Your task to perform on an android device: show emergency info Image 0: 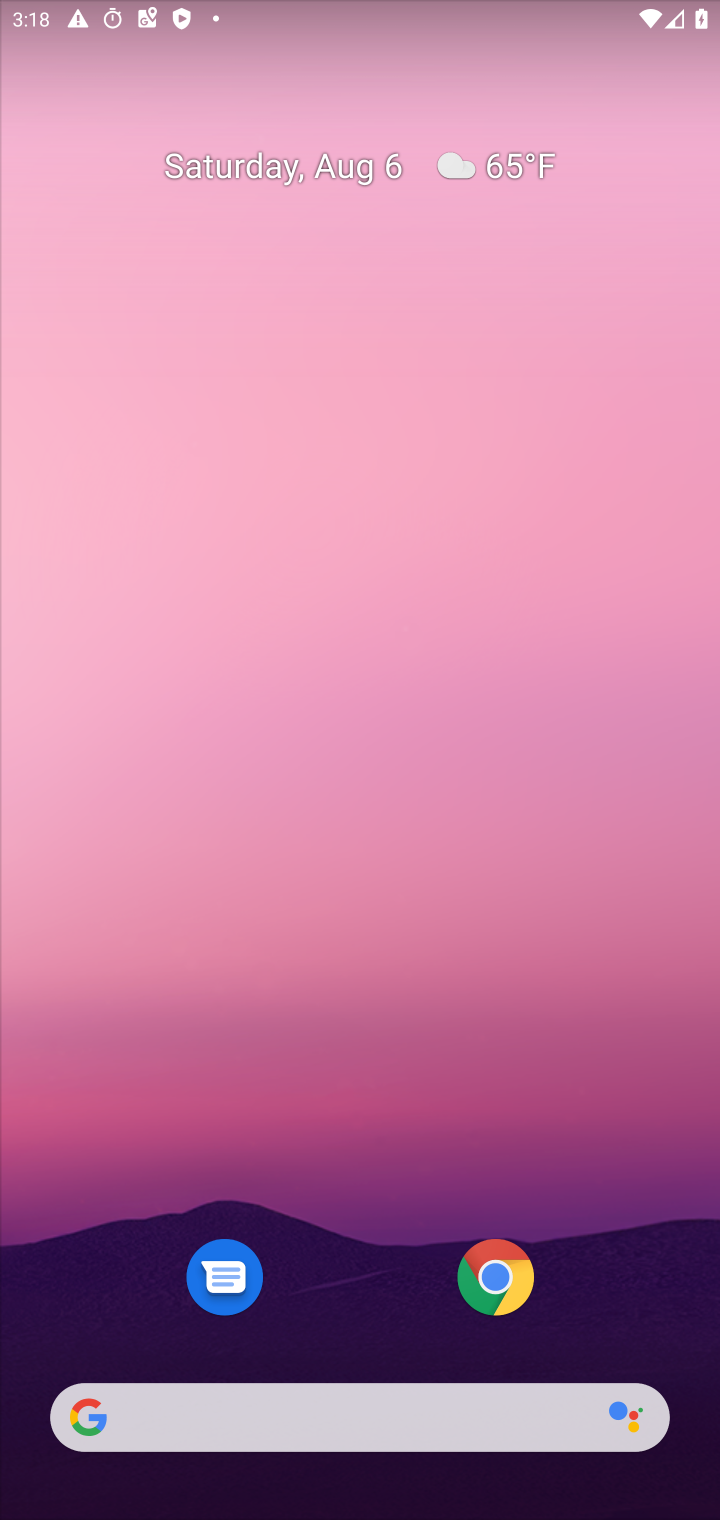
Step 0: press home button
Your task to perform on an android device: show emergency info Image 1: 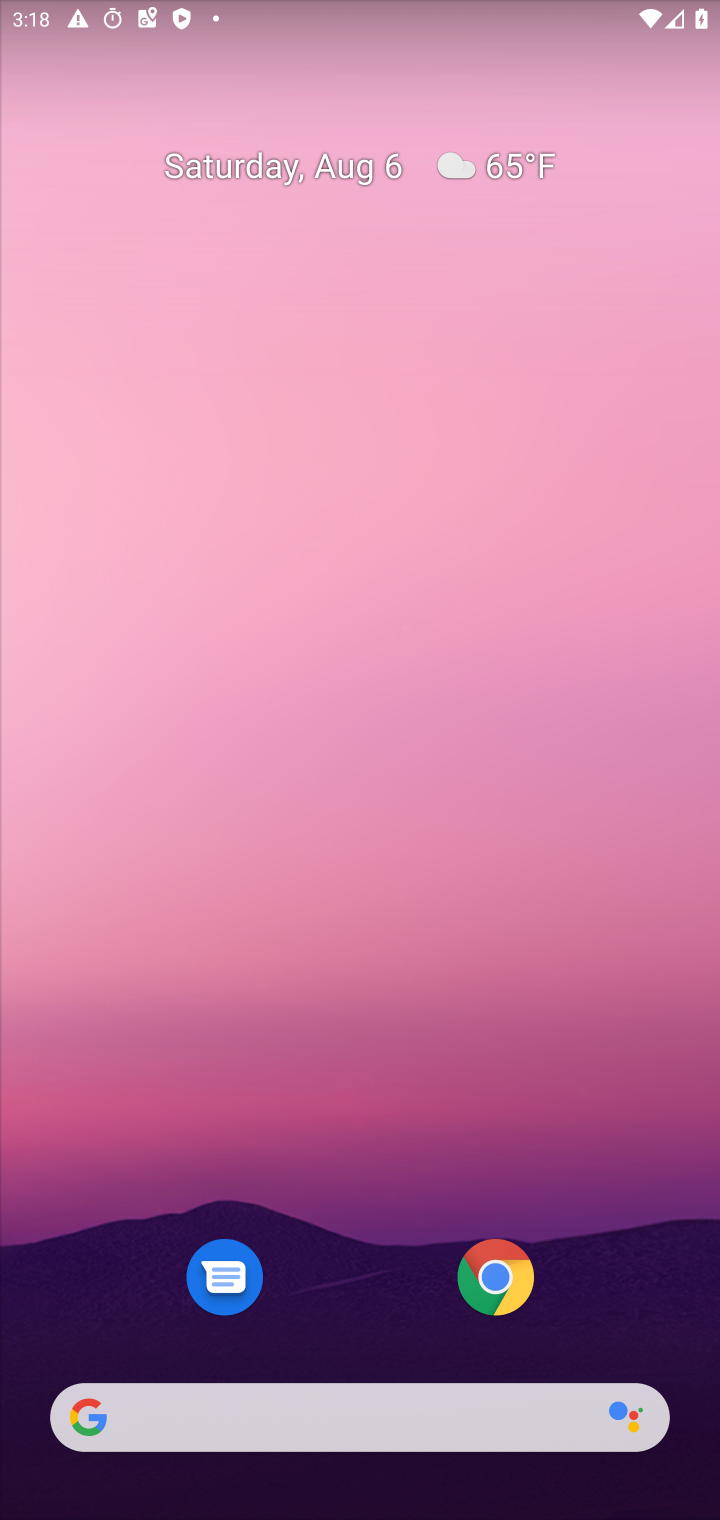
Step 1: drag from (458, 1380) to (429, 11)
Your task to perform on an android device: show emergency info Image 2: 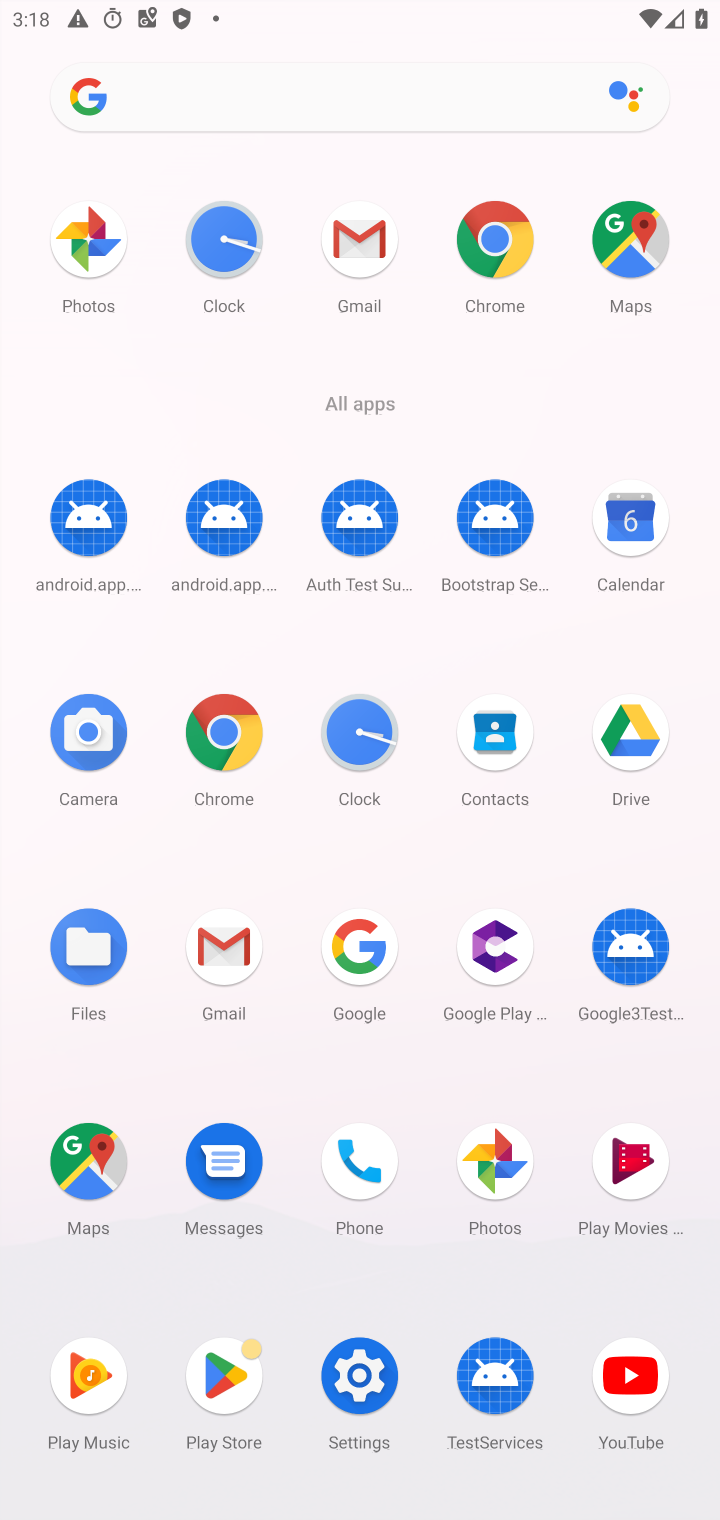
Step 2: click (360, 1367)
Your task to perform on an android device: show emergency info Image 3: 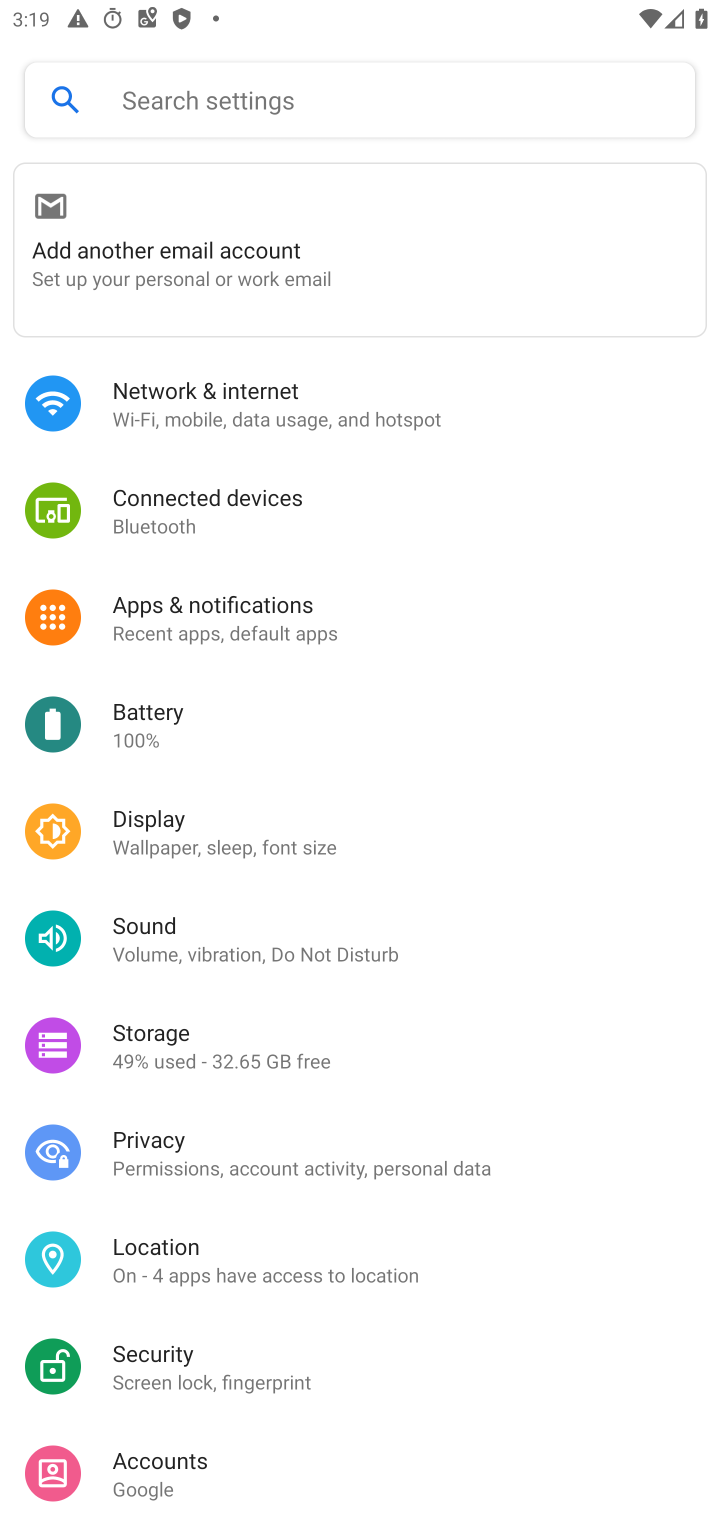
Step 3: drag from (603, 1419) to (708, 1406)
Your task to perform on an android device: show emergency info Image 4: 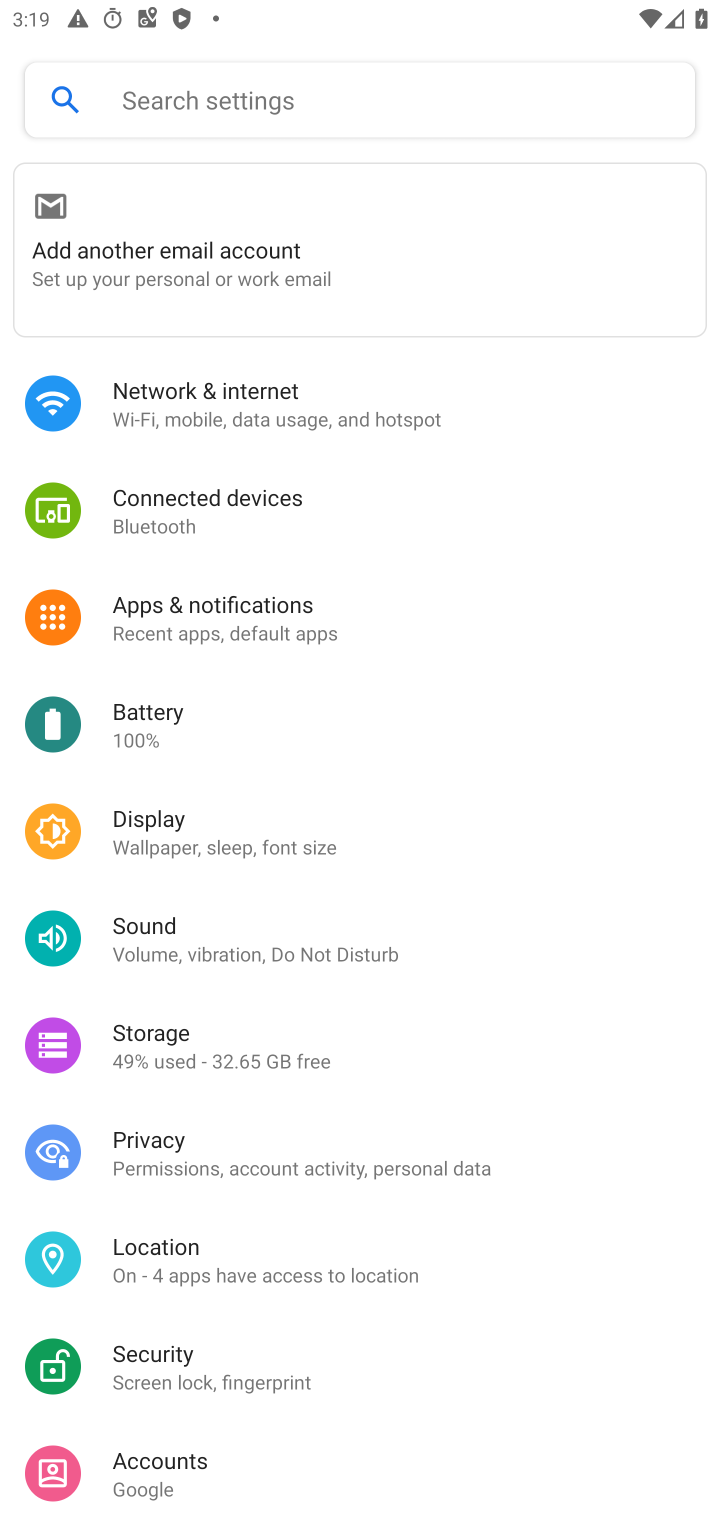
Step 4: drag from (665, 1385) to (444, 526)
Your task to perform on an android device: show emergency info Image 5: 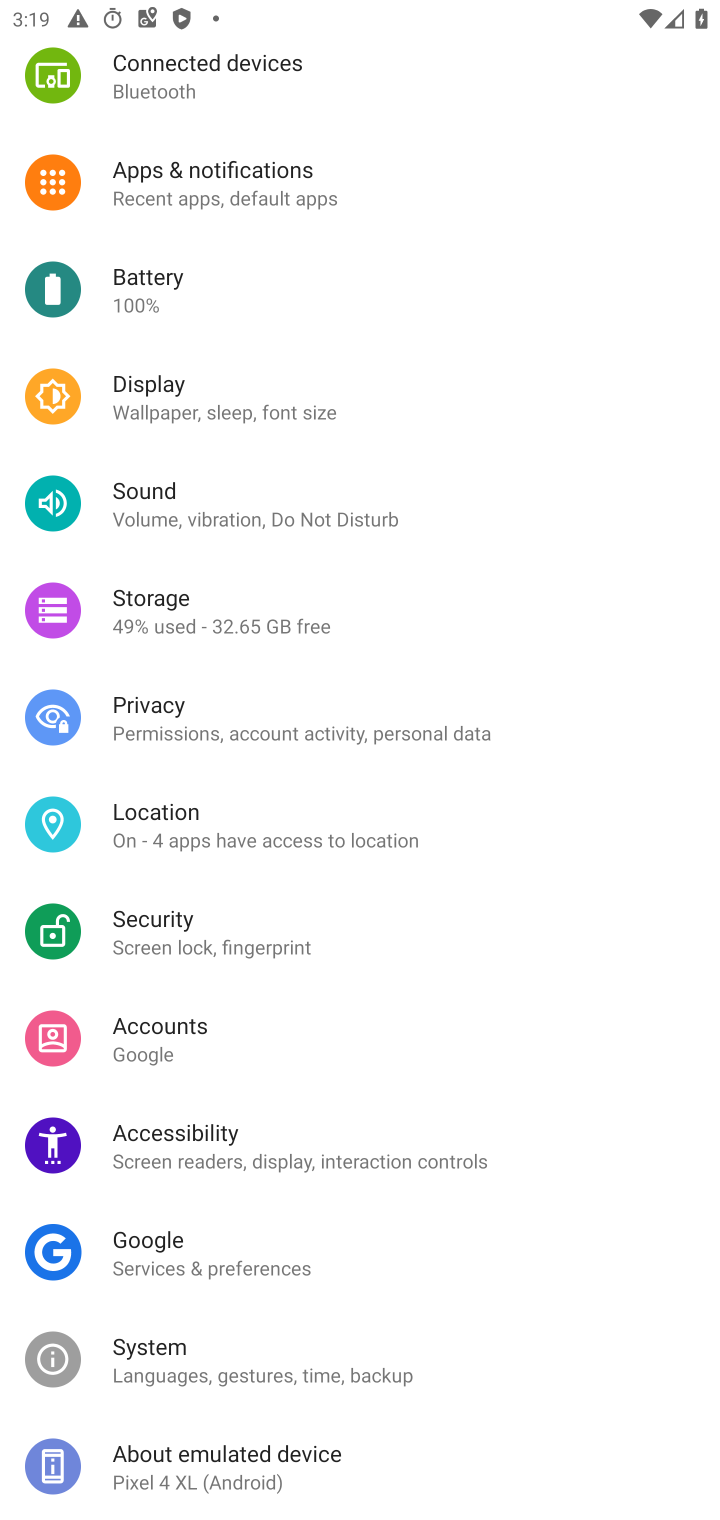
Step 5: click (286, 1476)
Your task to perform on an android device: show emergency info Image 6: 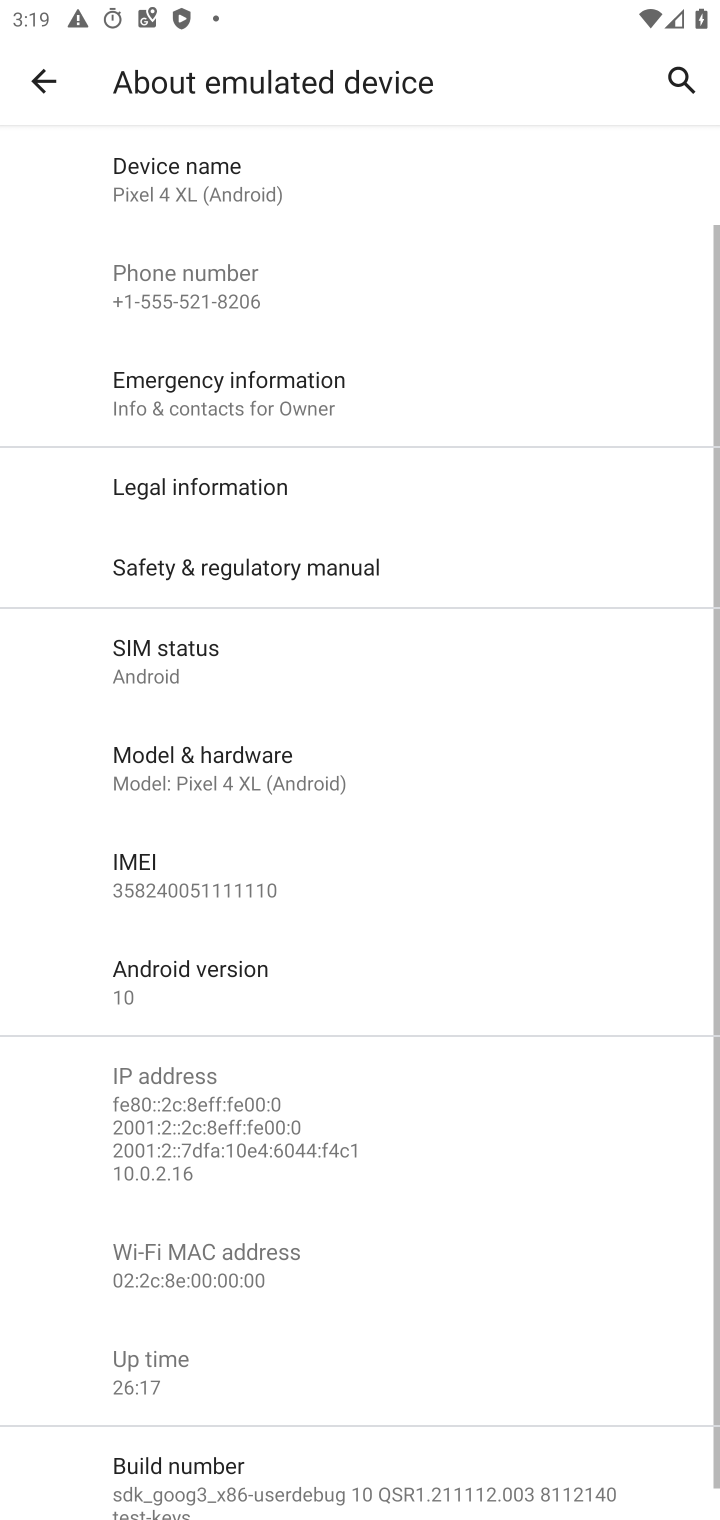
Step 6: click (273, 396)
Your task to perform on an android device: show emergency info Image 7: 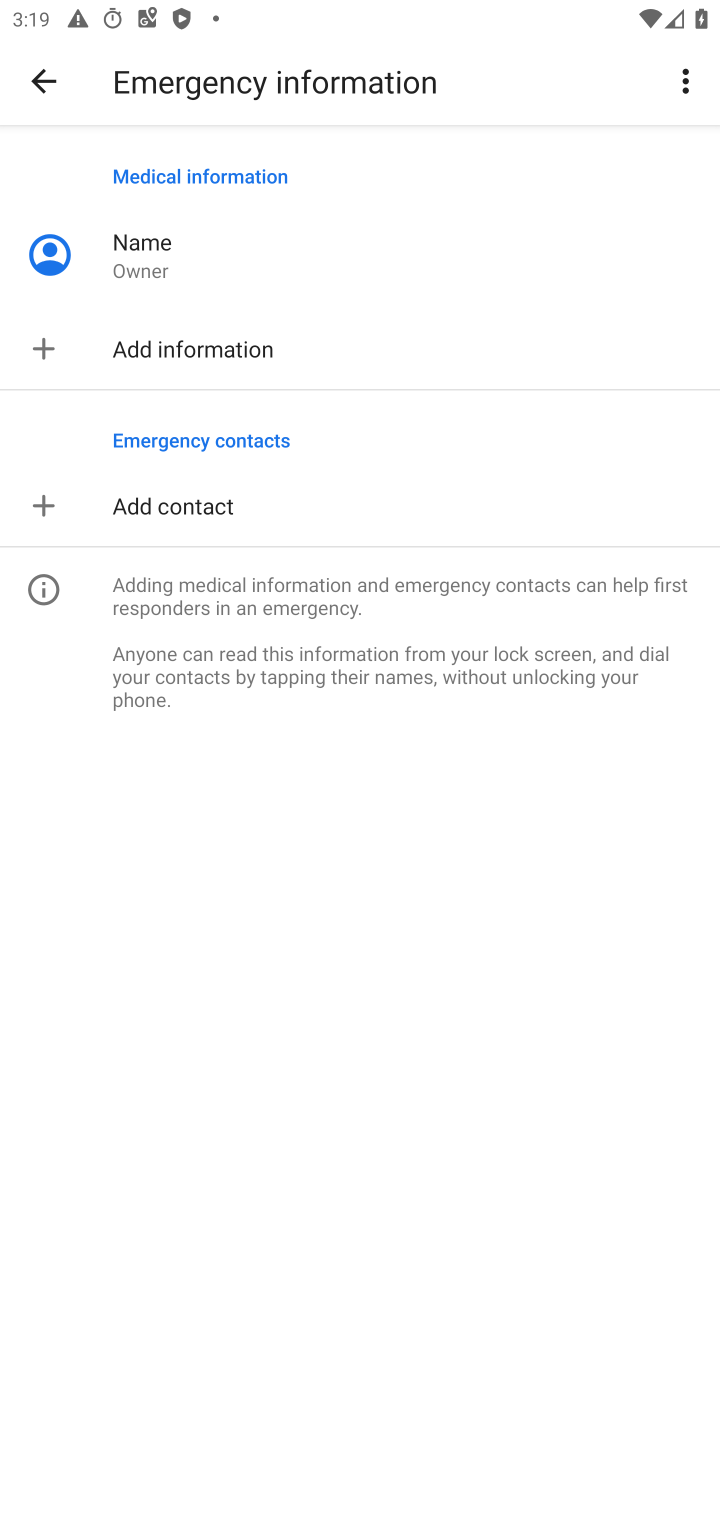
Step 7: task complete